Your task to perform on an android device: Open notification settings Image 0: 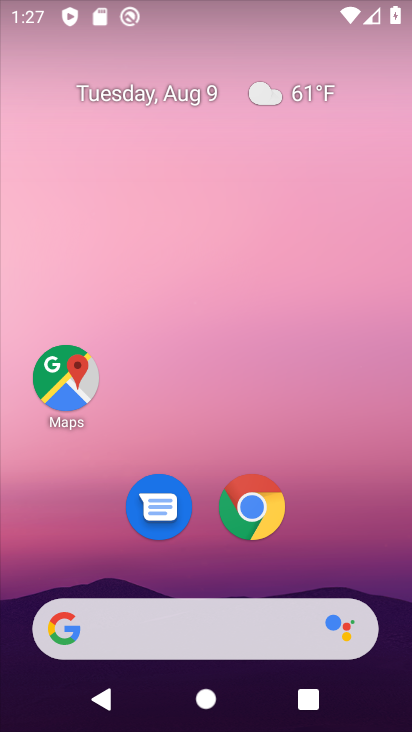
Step 0: drag from (203, 592) to (250, 46)
Your task to perform on an android device: Open notification settings Image 1: 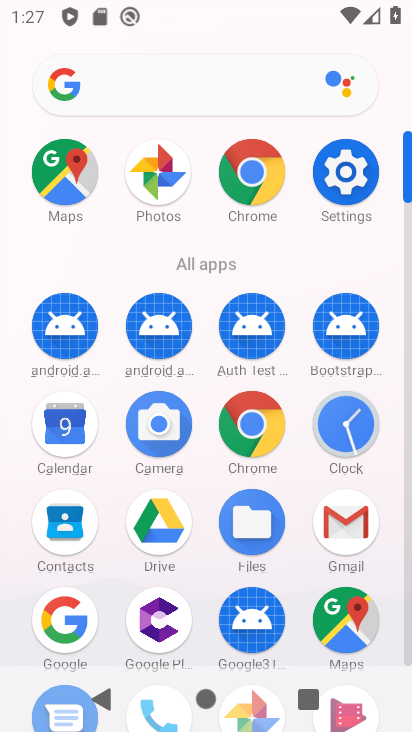
Step 1: click (350, 184)
Your task to perform on an android device: Open notification settings Image 2: 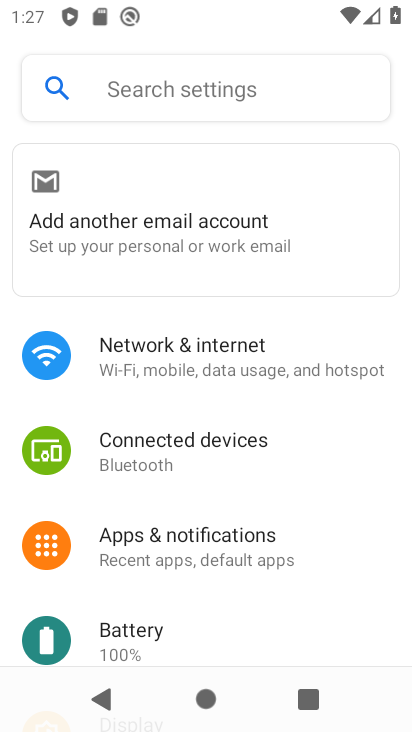
Step 2: click (199, 540)
Your task to perform on an android device: Open notification settings Image 3: 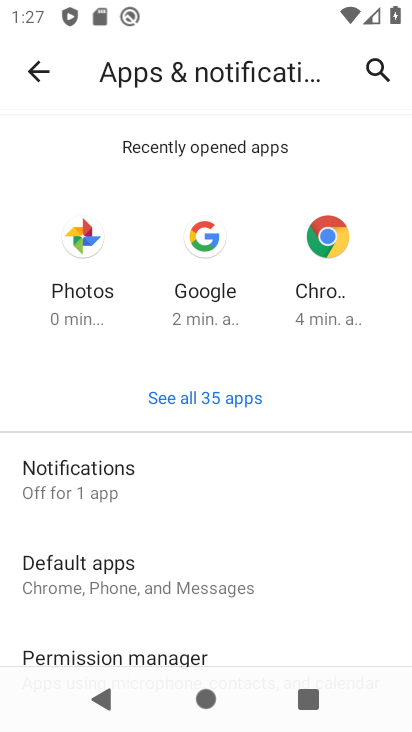
Step 3: click (132, 469)
Your task to perform on an android device: Open notification settings Image 4: 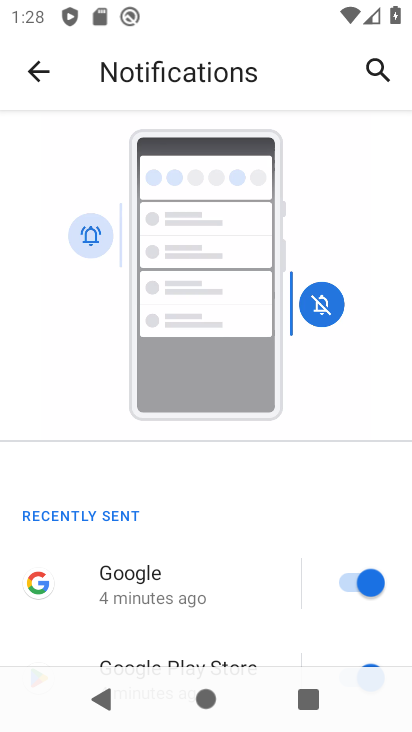
Step 4: task complete